Your task to perform on an android device: turn on improve location accuracy Image 0: 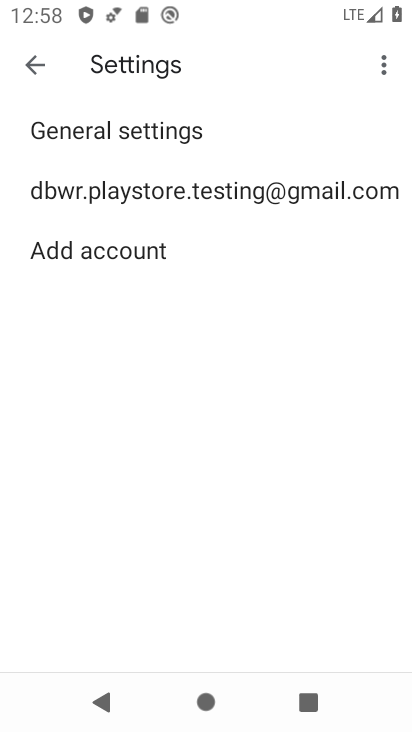
Step 0: press home button
Your task to perform on an android device: turn on improve location accuracy Image 1: 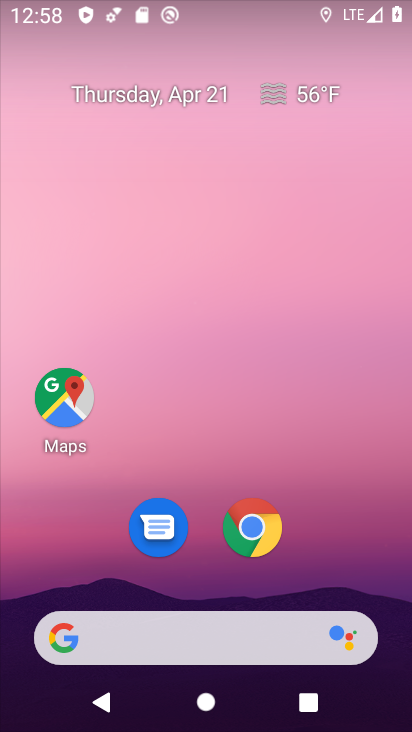
Step 1: drag from (224, 388) to (276, 1)
Your task to perform on an android device: turn on improve location accuracy Image 2: 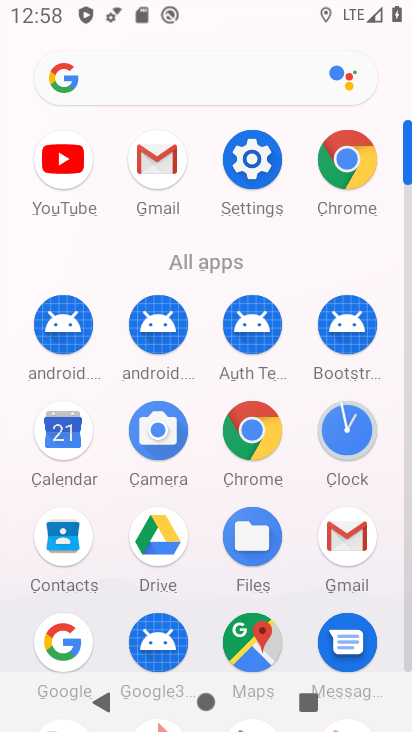
Step 2: click (240, 174)
Your task to perform on an android device: turn on improve location accuracy Image 3: 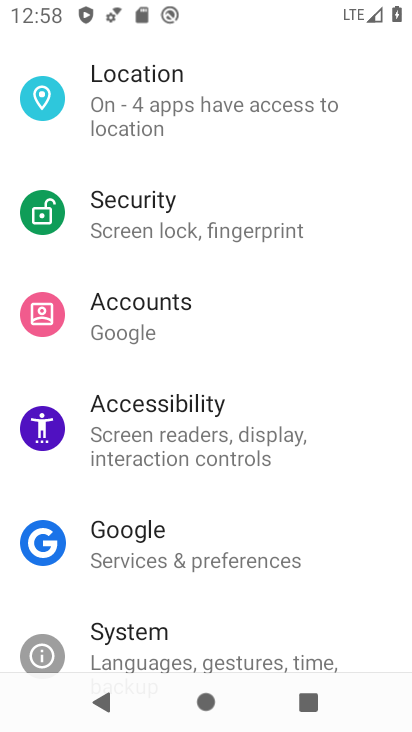
Step 3: click (193, 139)
Your task to perform on an android device: turn on improve location accuracy Image 4: 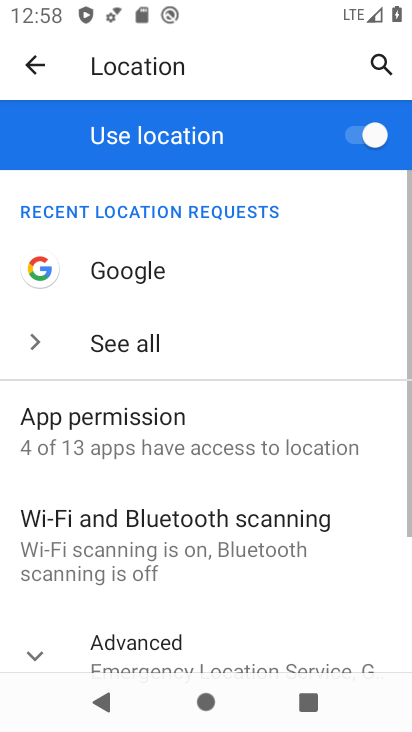
Step 4: drag from (201, 594) to (260, 203)
Your task to perform on an android device: turn on improve location accuracy Image 5: 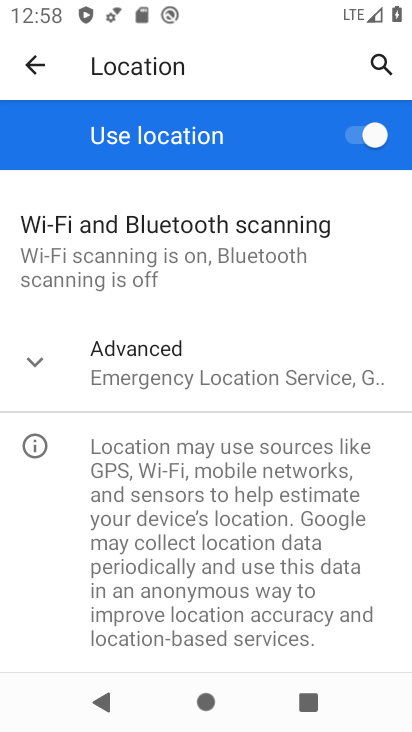
Step 5: click (137, 377)
Your task to perform on an android device: turn on improve location accuracy Image 6: 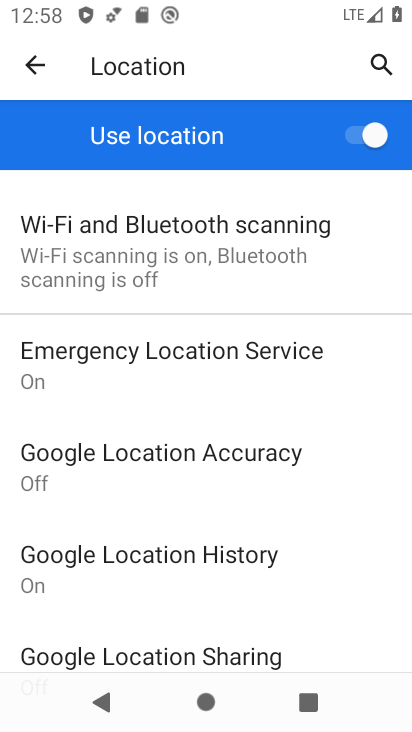
Step 6: click (179, 478)
Your task to perform on an android device: turn on improve location accuracy Image 7: 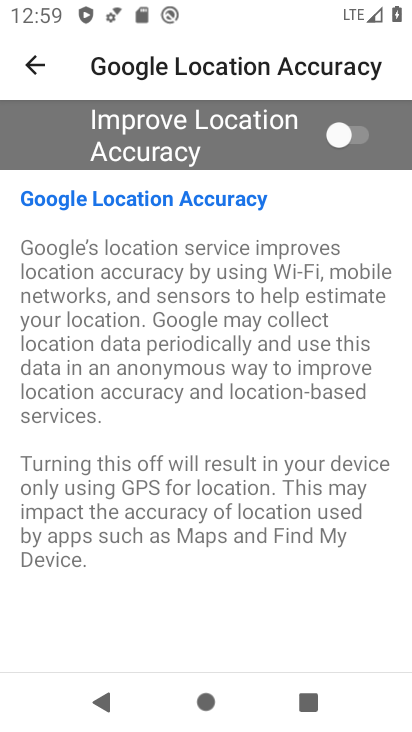
Step 7: click (333, 140)
Your task to perform on an android device: turn on improve location accuracy Image 8: 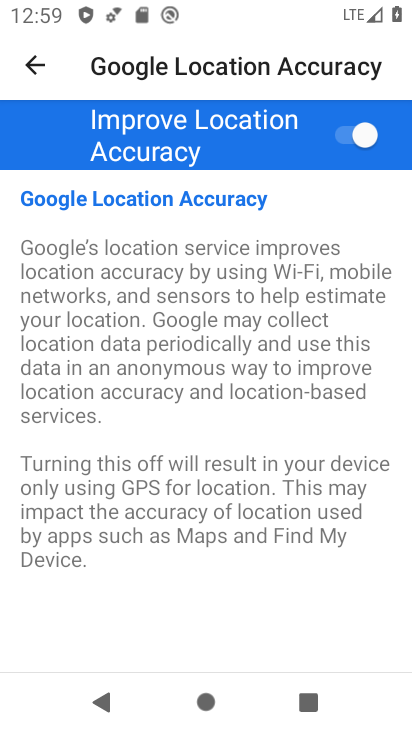
Step 8: task complete